Your task to perform on an android device: empty trash in the gmail app Image 0: 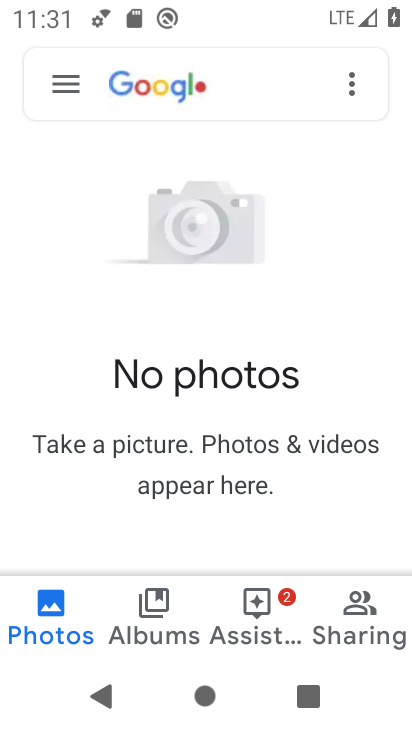
Step 0: press home button
Your task to perform on an android device: empty trash in the gmail app Image 1: 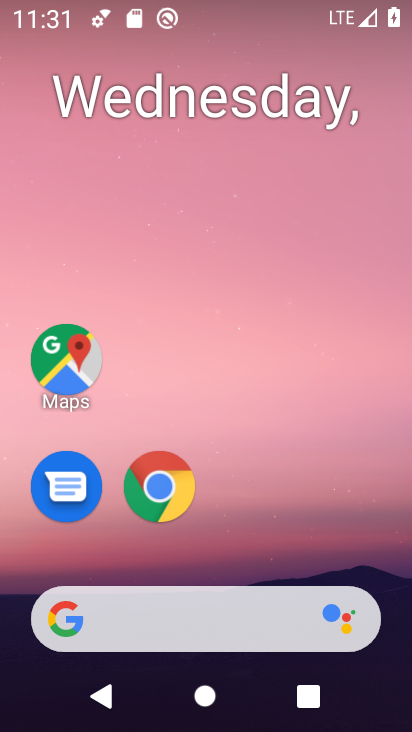
Step 1: drag from (387, 545) to (371, 109)
Your task to perform on an android device: empty trash in the gmail app Image 2: 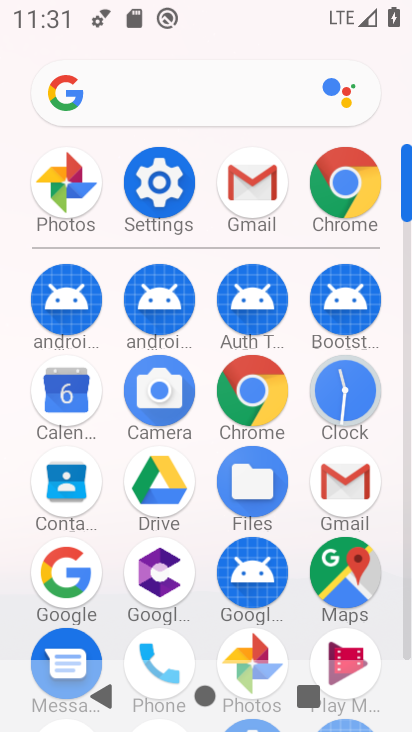
Step 2: click (346, 479)
Your task to perform on an android device: empty trash in the gmail app Image 3: 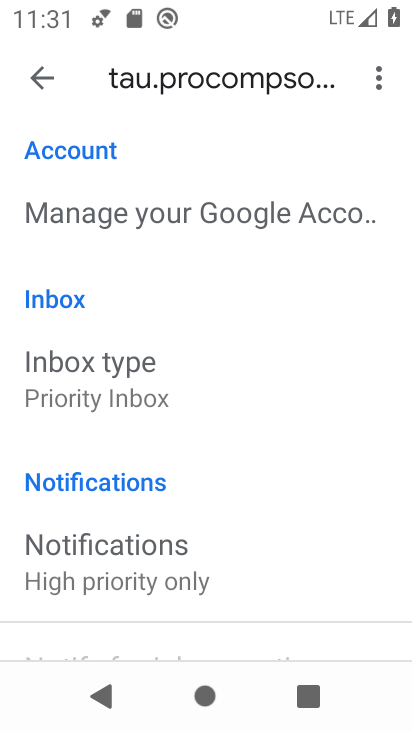
Step 3: click (37, 81)
Your task to perform on an android device: empty trash in the gmail app Image 4: 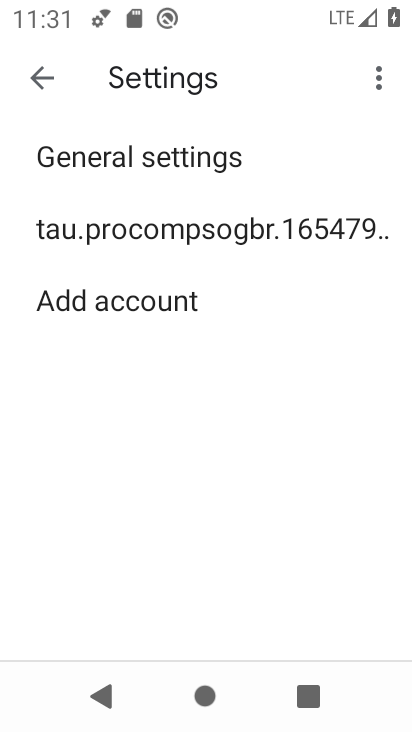
Step 4: click (40, 68)
Your task to perform on an android device: empty trash in the gmail app Image 5: 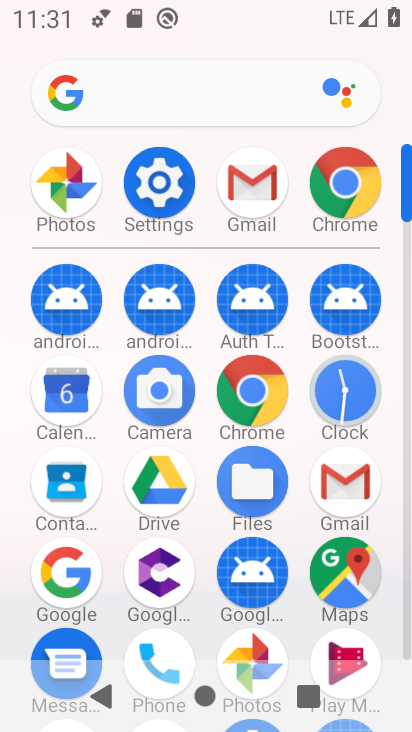
Step 5: click (352, 492)
Your task to perform on an android device: empty trash in the gmail app Image 6: 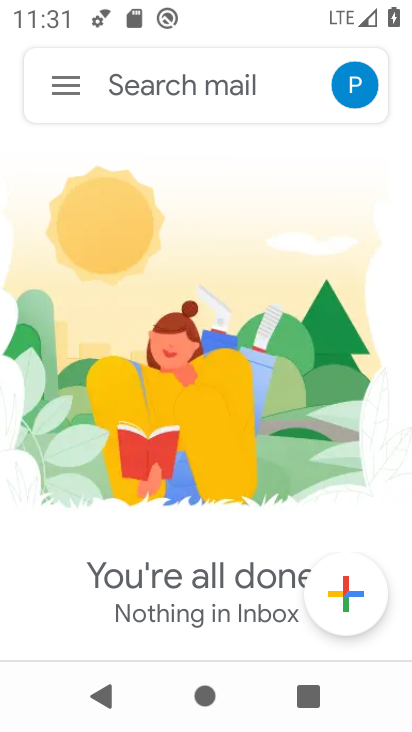
Step 6: click (71, 82)
Your task to perform on an android device: empty trash in the gmail app Image 7: 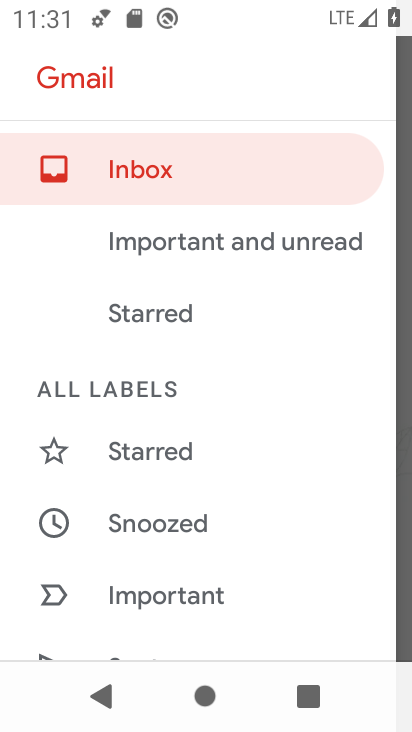
Step 7: drag from (284, 459) to (284, 302)
Your task to perform on an android device: empty trash in the gmail app Image 8: 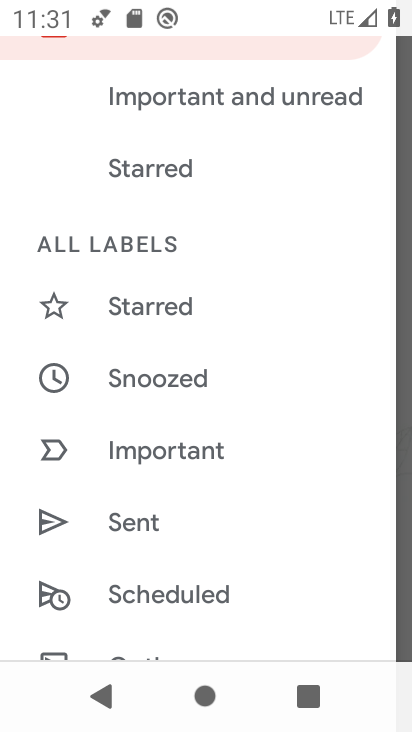
Step 8: drag from (289, 489) to (291, 355)
Your task to perform on an android device: empty trash in the gmail app Image 9: 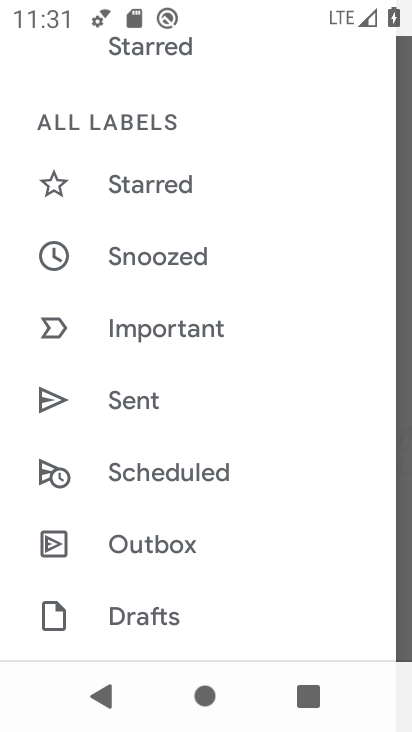
Step 9: drag from (307, 524) to (311, 359)
Your task to perform on an android device: empty trash in the gmail app Image 10: 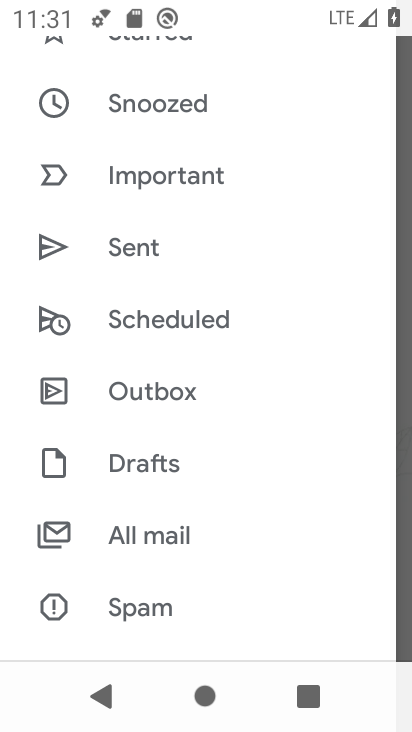
Step 10: drag from (293, 514) to (290, 351)
Your task to perform on an android device: empty trash in the gmail app Image 11: 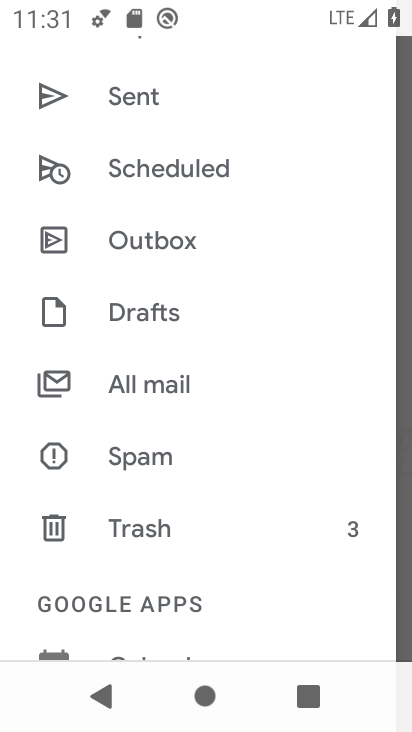
Step 11: click (173, 526)
Your task to perform on an android device: empty trash in the gmail app Image 12: 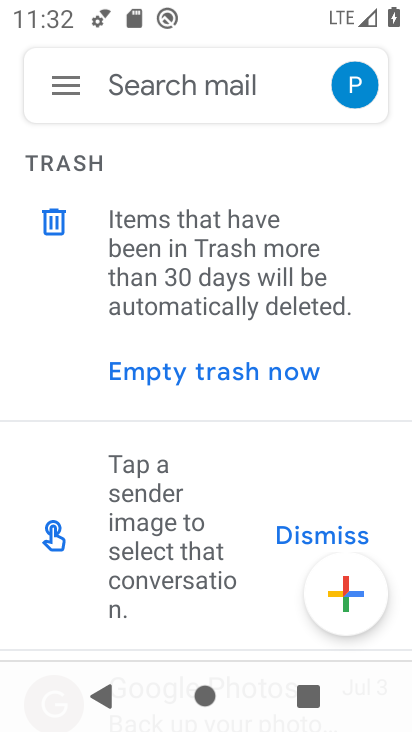
Step 12: click (210, 369)
Your task to perform on an android device: empty trash in the gmail app Image 13: 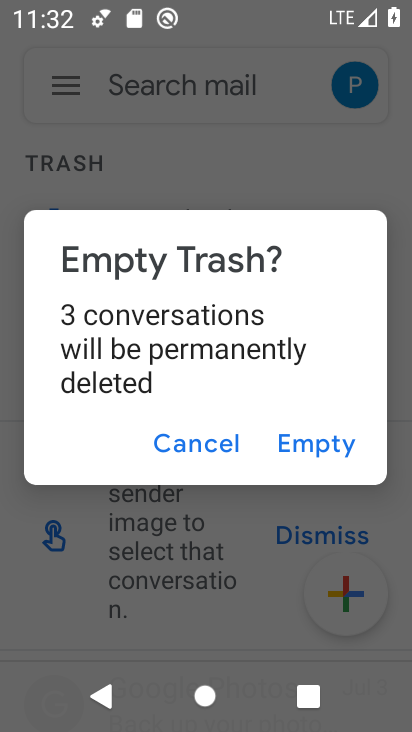
Step 13: click (309, 441)
Your task to perform on an android device: empty trash in the gmail app Image 14: 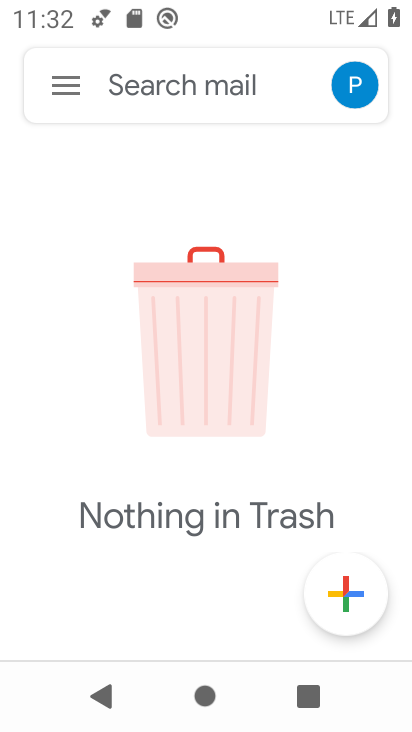
Step 14: task complete